Your task to perform on an android device: Search for vegetarian restaurants on Maps Image 0: 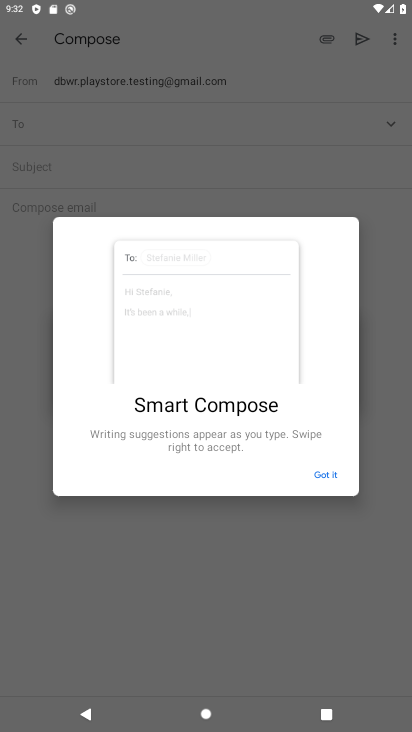
Step 0: press home button
Your task to perform on an android device: Search for vegetarian restaurants on Maps Image 1: 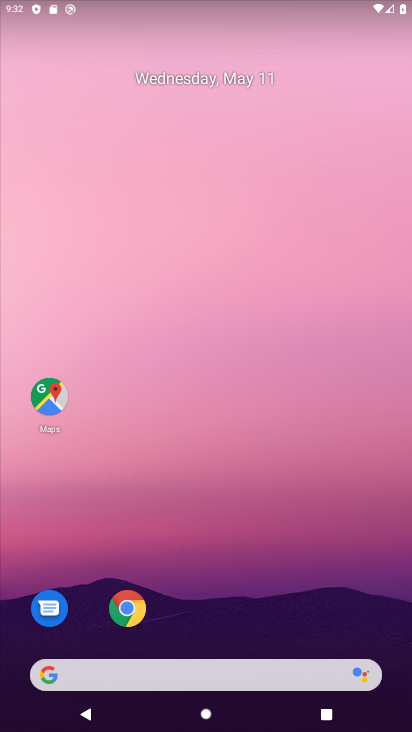
Step 1: click (46, 404)
Your task to perform on an android device: Search for vegetarian restaurants on Maps Image 2: 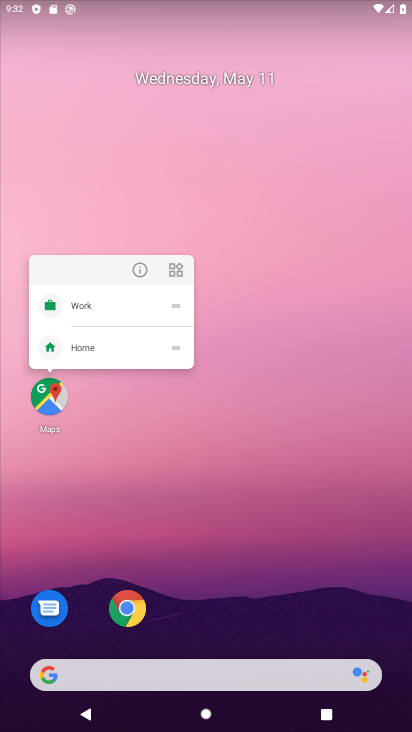
Step 2: click (58, 391)
Your task to perform on an android device: Search for vegetarian restaurants on Maps Image 3: 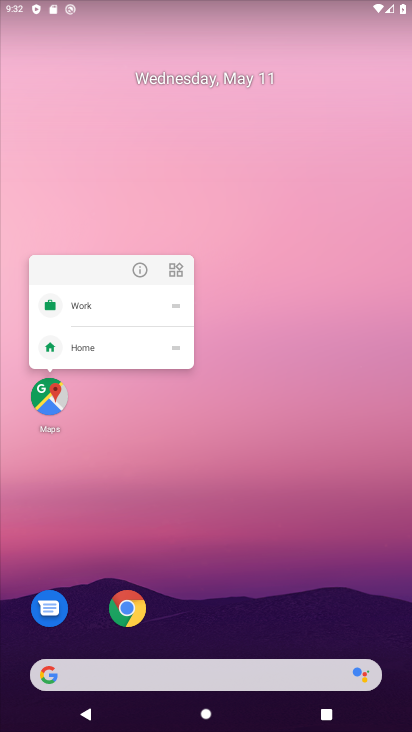
Step 3: click (56, 401)
Your task to perform on an android device: Search for vegetarian restaurants on Maps Image 4: 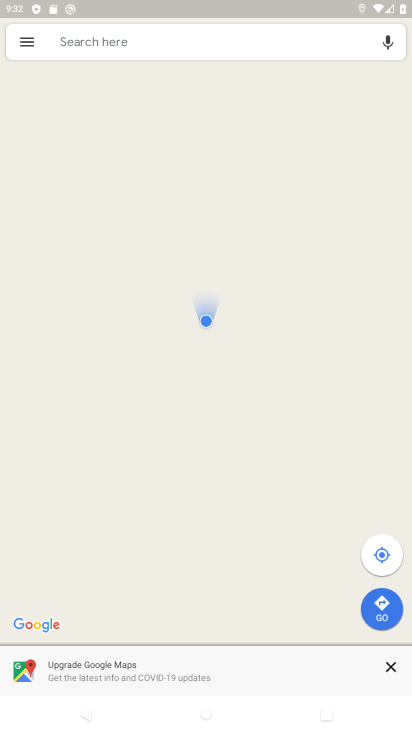
Step 4: click (130, 44)
Your task to perform on an android device: Search for vegetarian restaurants on Maps Image 5: 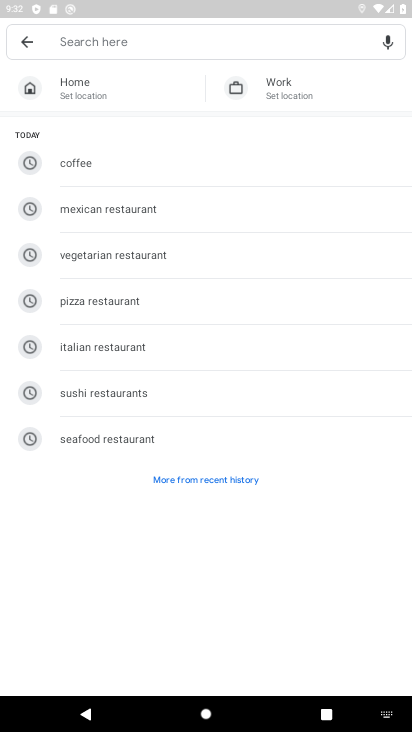
Step 5: click (122, 261)
Your task to perform on an android device: Search for vegetarian restaurants on Maps Image 6: 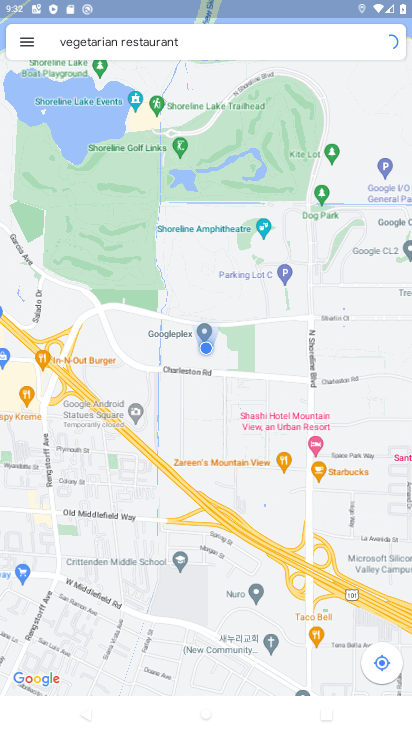
Step 6: task complete